Your task to perform on an android device: Open Google Maps Image 0: 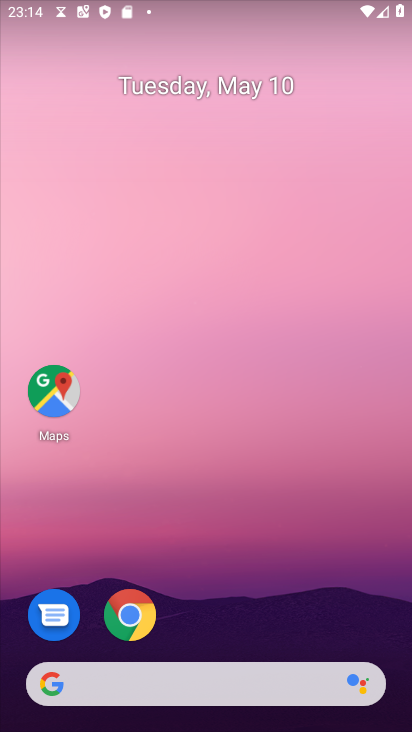
Step 0: click (54, 394)
Your task to perform on an android device: Open Google Maps Image 1: 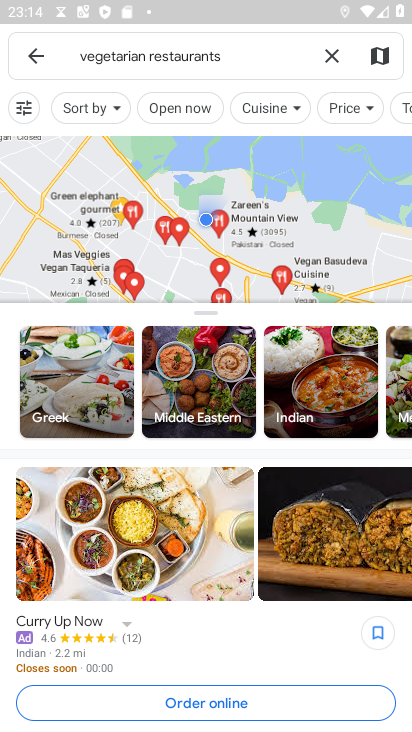
Step 1: task complete